Your task to perform on an android device: Open Reddit.com Image 0: 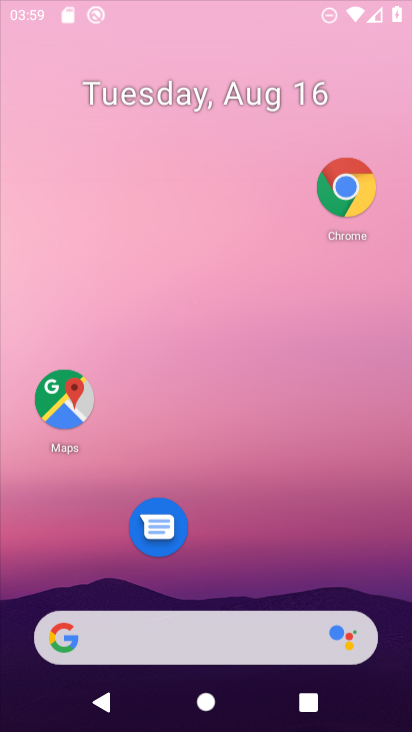
Step 0: press home button
Your task to perform on an android device: Open Reddit.com Image 1: 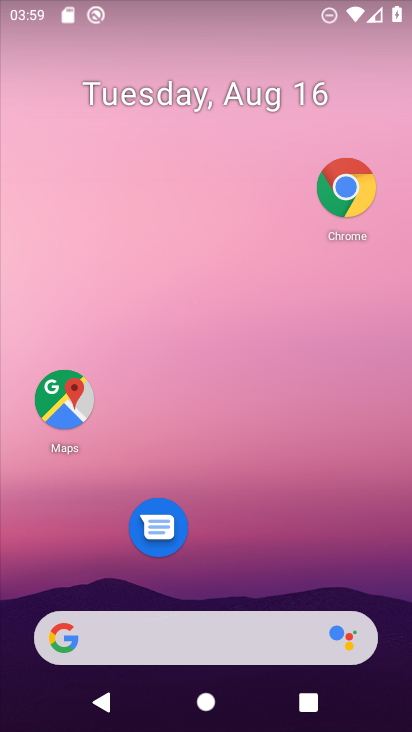
Step 1: drag from (229, 588) to (263, 0)
Your task to perform on an android device: Open Reddit.com Image 2: 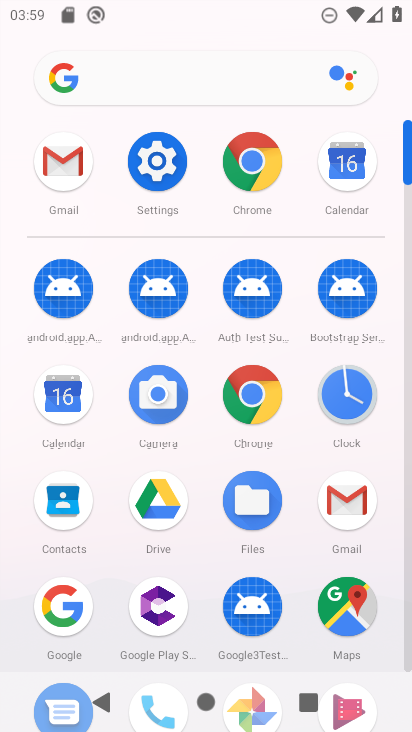
Step 2: click (250, 156)
Your task to perform on an android device: Open Reddit.com Image 3: 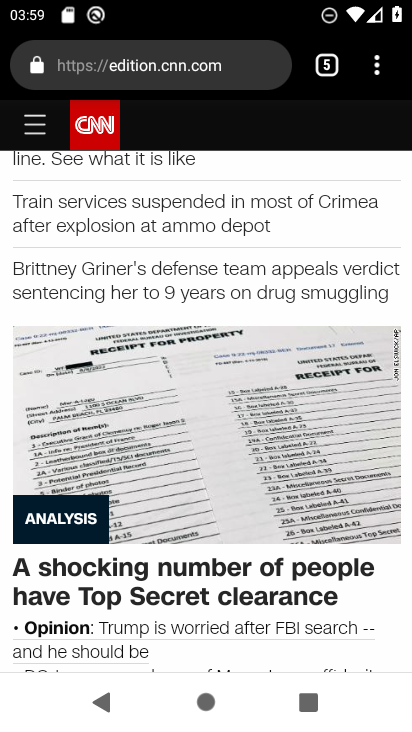
Step 3: click (330, 61)
Your task to perform on an android device: Open Reddit.com Image 4: 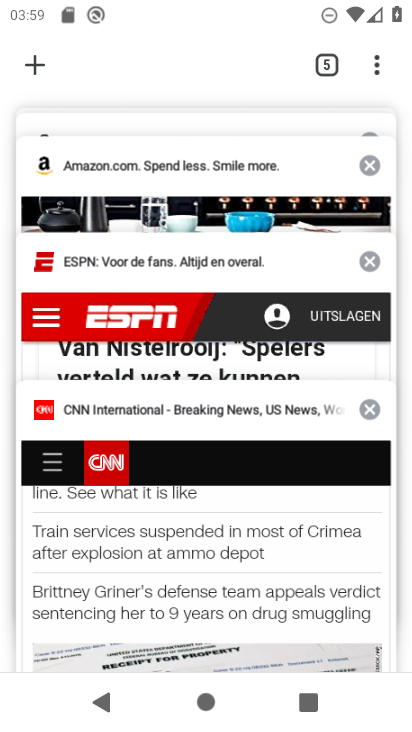
Step 4: click (38, 63)
Your task to perform on an android device: Open Reddit.com Image 5: 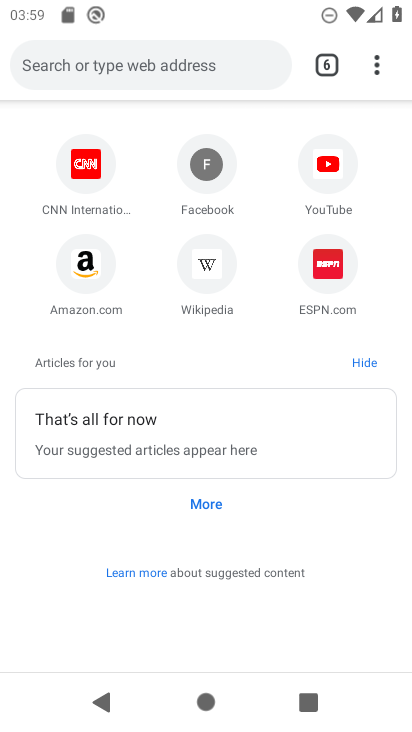
Step 5: click (84, 65)
Your task to perform on an android device: Open Reddit.com Image 6: 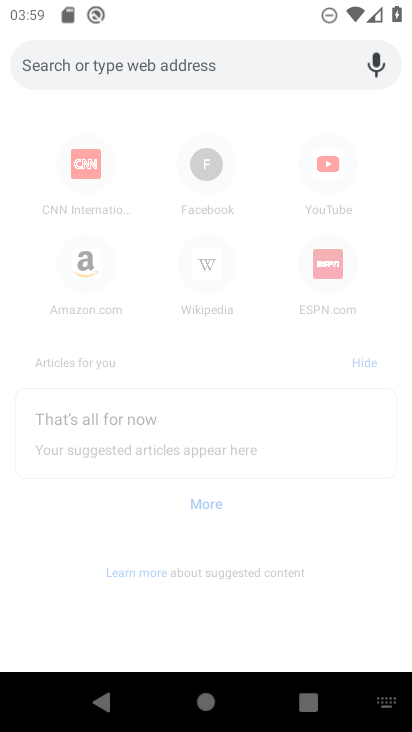
Step 6: type "reddit.com"
Your task to perform on an android device: Open Reddit.com Image 7: 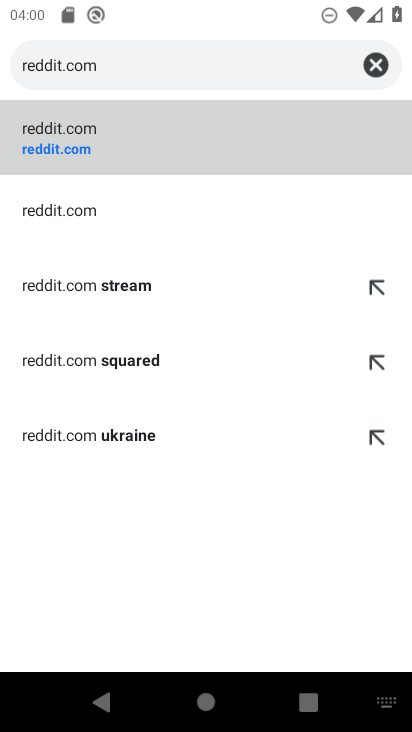
Step 7: click (106, 135)
Your task to perform on an android device: Open Reddit.com Image 8: 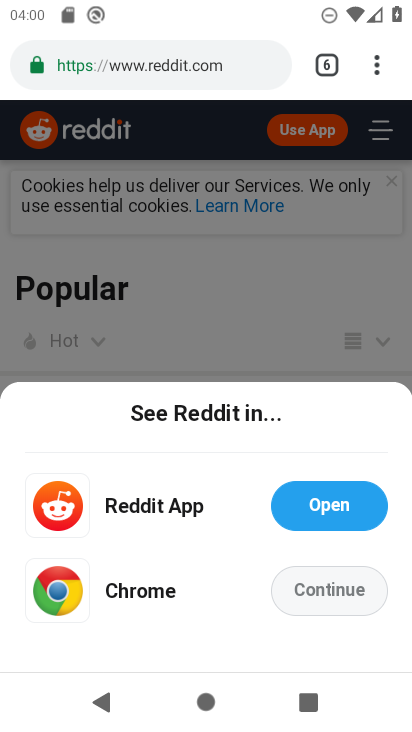
Step 8: click (330, 589)
Your task to perform on an android device: Open Reddit.com Image 9: 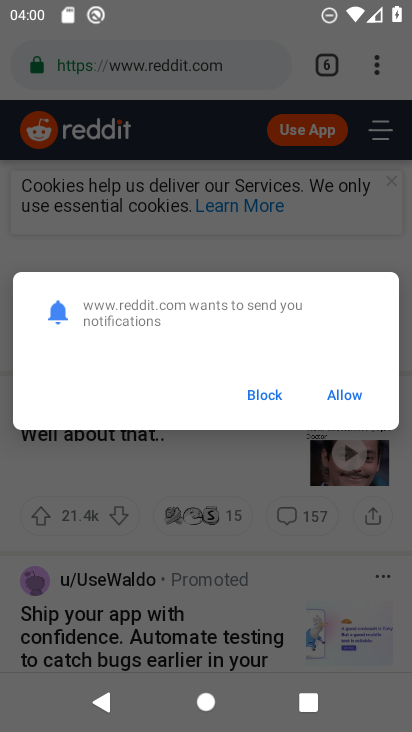
Step 9: click (347, 388)
Your task to perform on an android device: Open Reddit.com Image 10: 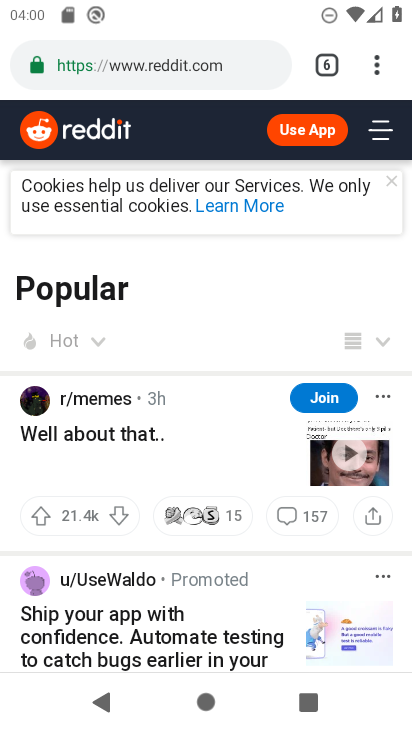
Step 10: task complete